Your task to perform on an android device: check data usage Image 0: 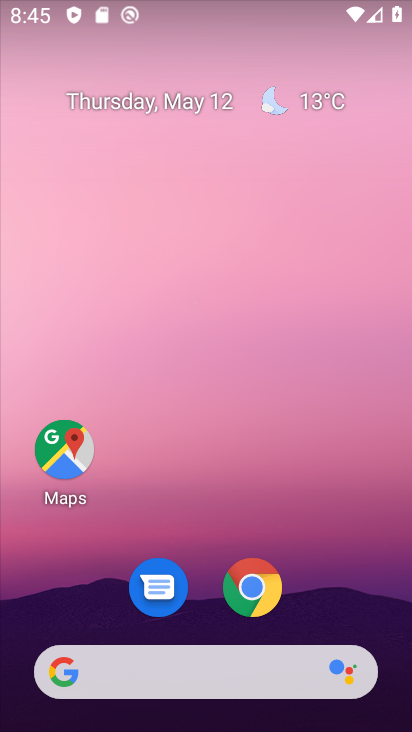
Step 0: drag from (368, 570) to (316, 112)
Your task to perform on an android device: check data usage Image 1: 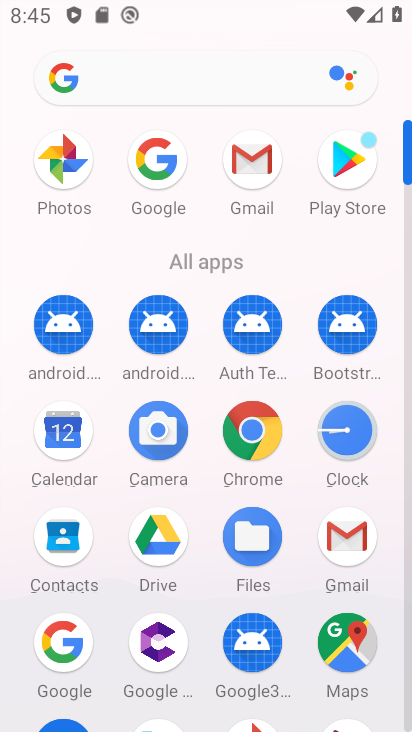
Step 1: drag from (399, 607) to (372, 348)
Your task to perform on an android device: check data usage Image 2: 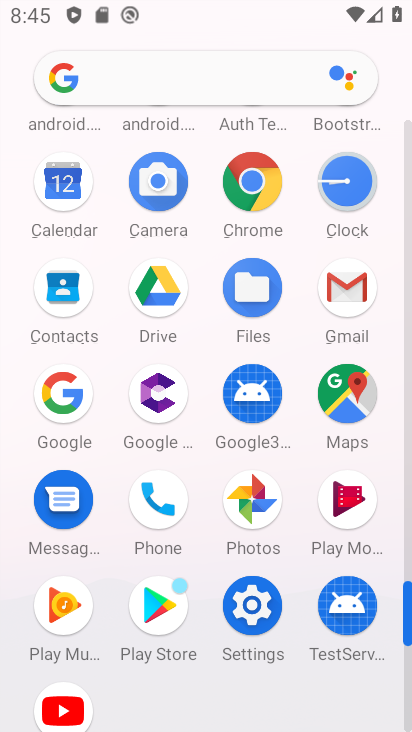
Step 2: click (253, 626)
Your task to perform on an android device: check data usage Image 3: 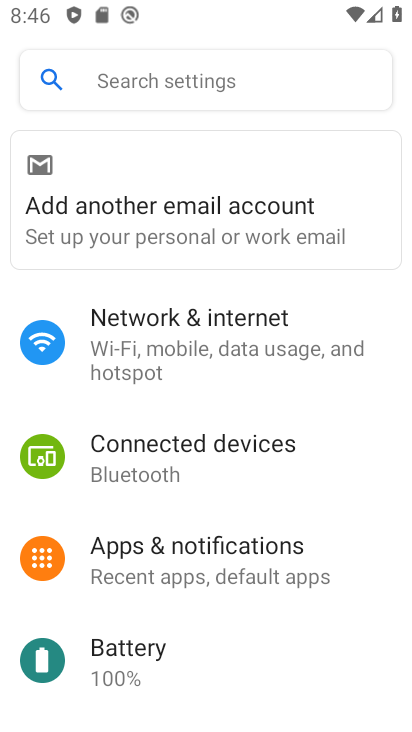
Step 3: click (130, 324)
Your task to perform on an android device: check data usage Image 4: 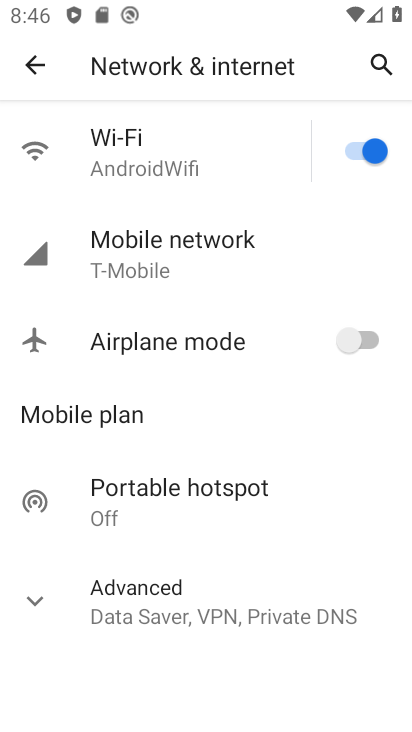
Step 4: click (188, 243)
Your task to perform on an android device: check data usage Image 5: 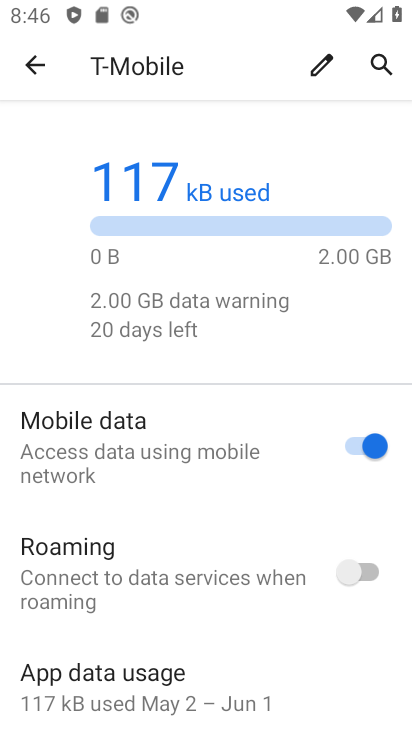
Step 5: task complete